Your task to perform on an android device: toggle priority inbox in the gmail app Image 0: 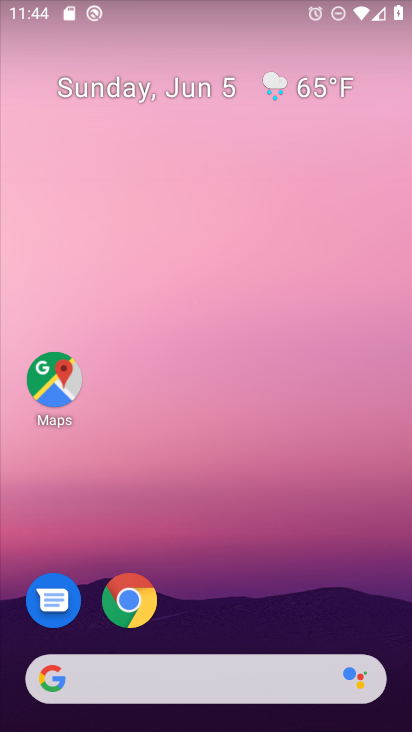
Step 0: click (402, 611)
Your task to perform on an android device: toggle priority inbox in the gmail app Image 1: 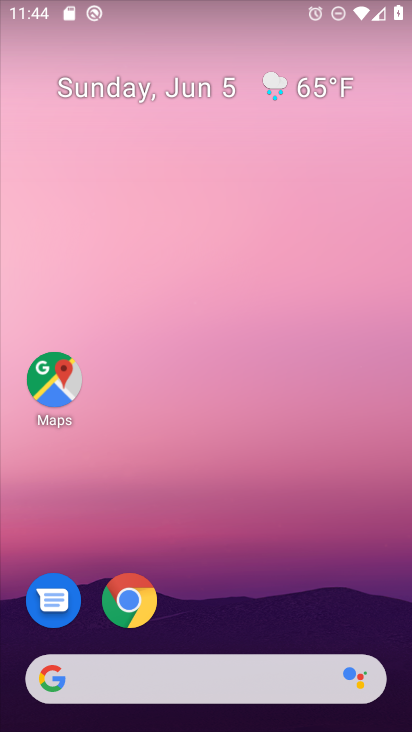
Step 1: drag from (351, 412) to (406, 484)
Your task to perform on an android device: toggle priority inbox in the gmail app Image 2: 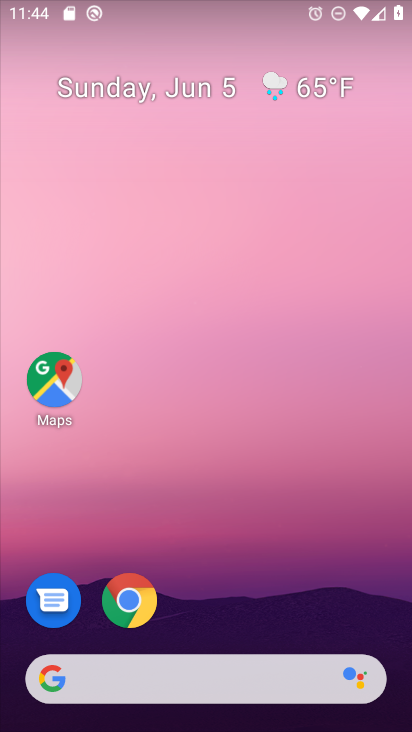
Step 2: drag from (341, 327) to (256, 33)
Your task to perform on an android device: toggle priority inbox in the gmail app Image 3: 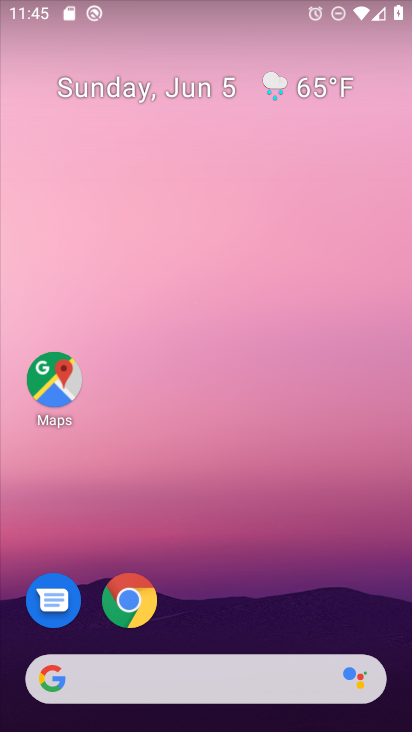
Step 3: drag from (388, 506) to (268, 7)
Your task to perform on an android device: toggle priority inbox in the gmail app Image 4: 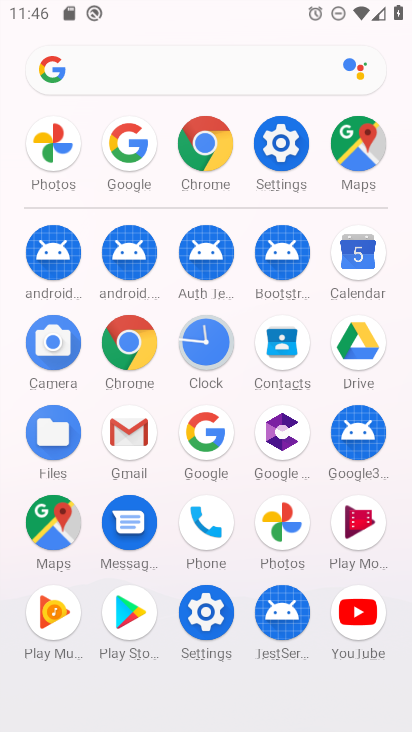
Step 4: click (134, 431)
Your task to perform on an android device: toggle priority inbox in the gmail app Image 5: 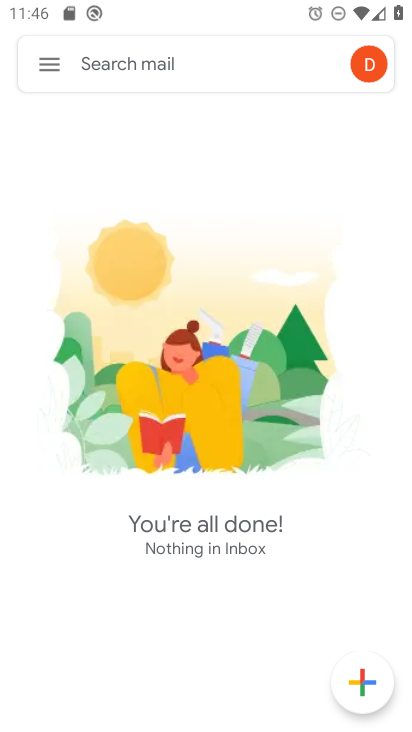
Step 5: click (37, 72)
Your task to perform on an android device: toggle priority inbox in the gmail app Image 6: 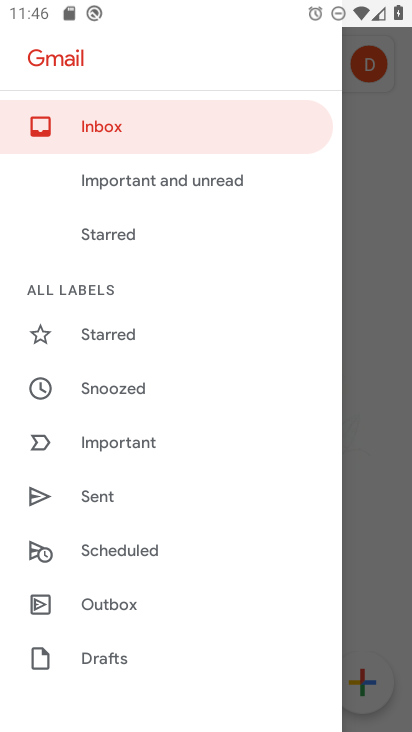
Step 6: drag from (121, 634) to (106, 115)
Your task to perform on an android device: toggle priority inbox in the gmail app Image 7: 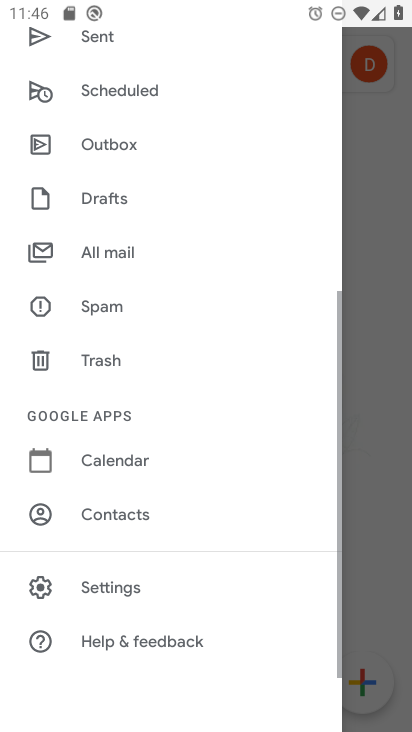
Step 7: click (125, 593)
Your task to perform on an android device: toggle priority inbox in the gmail app Image 8: 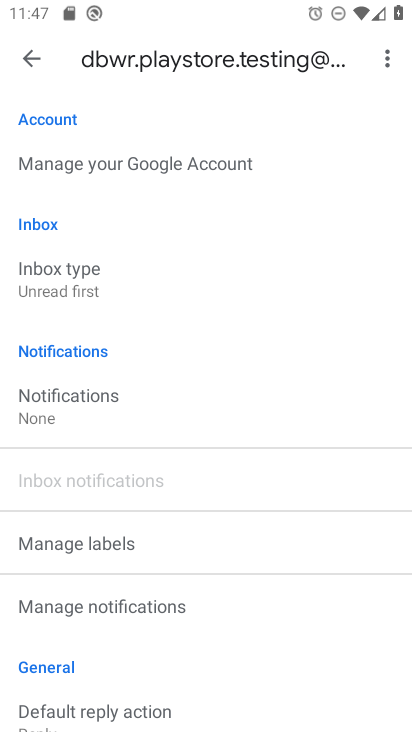
Step 8: click (124, 298)
Your task to perform on an android device: toggle priority inbox in the gmail app Image 9: 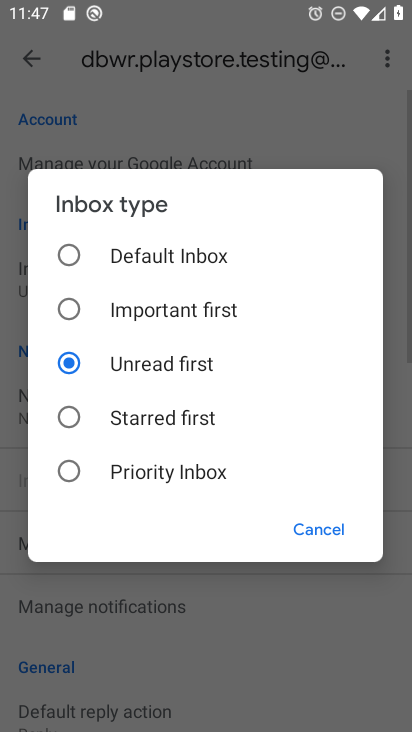
Step 9: click (84, 255)
Your task to perform on an android device: toggle priority inbox in the gmail app Image 10: 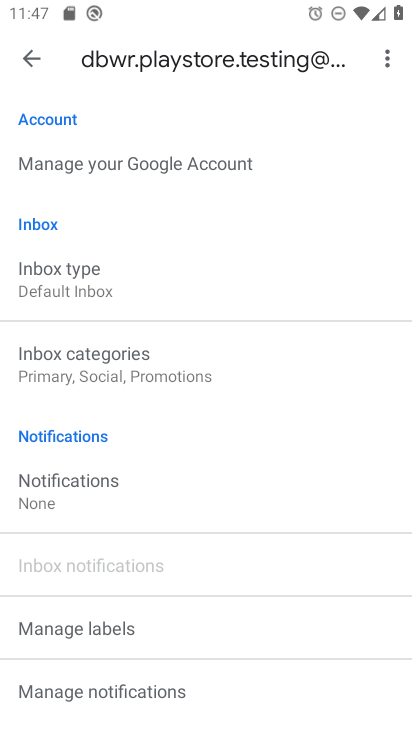
Step 10: task complete